Your task to perform on an android device: set default search engine in the chrome app Image 0: 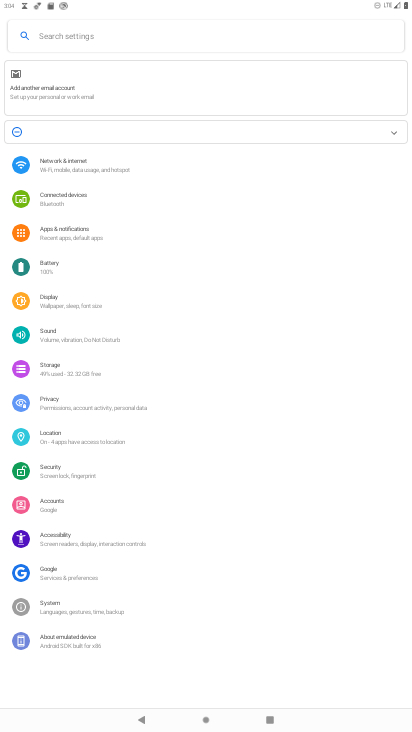
Step 0: press home button
Your task to perform on an android device: set default search engine in the chrome app Image 1: 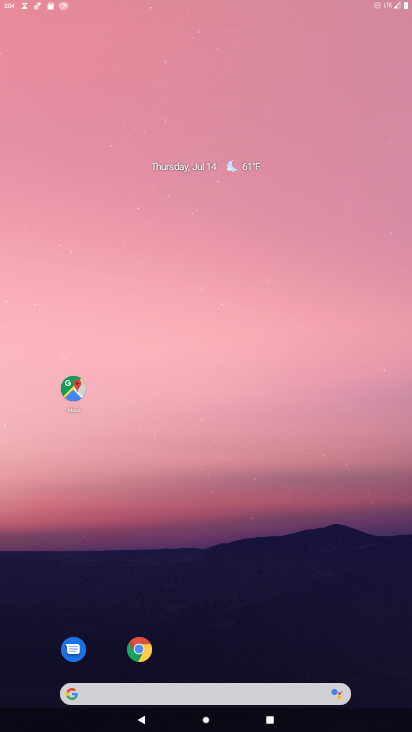
Step 1: drag from (256, 632) to (398, 419)
Your task to perform on an android device: set default search engine in the chrome app Image 2: 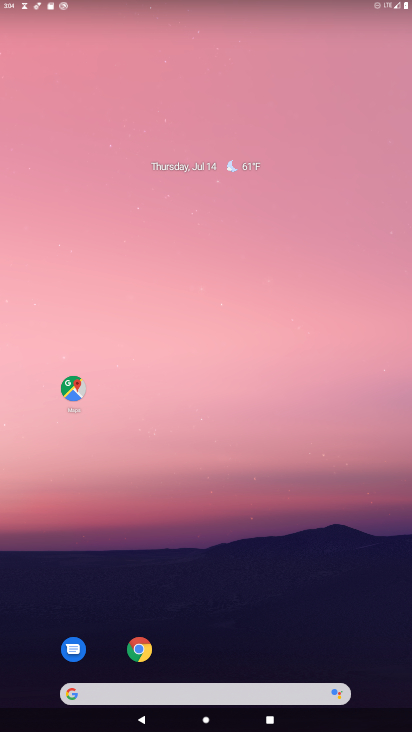
Step 2: click (133, 288)
Your task to perform on an android device: set default search engine in the chrome app Image 3: 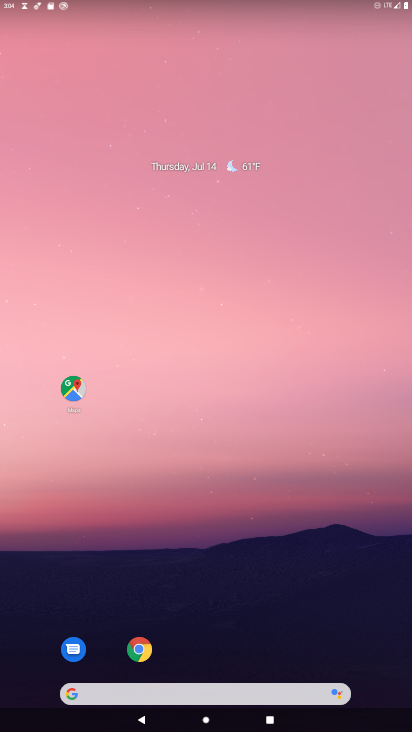
Step 3: drag from (290, 690) to (311, 13)
Your task to perform on an android device: set default search engine in the chrome app Image 4: 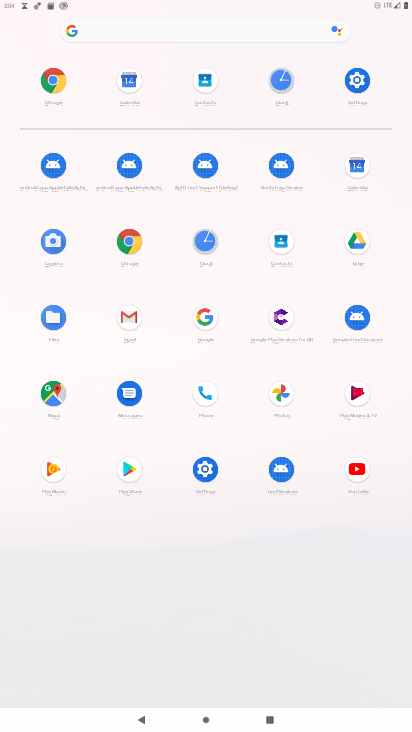
Step 4: click (128, 237)
Your task to perform on an android device: set default search engine in the chrome app Image 5: 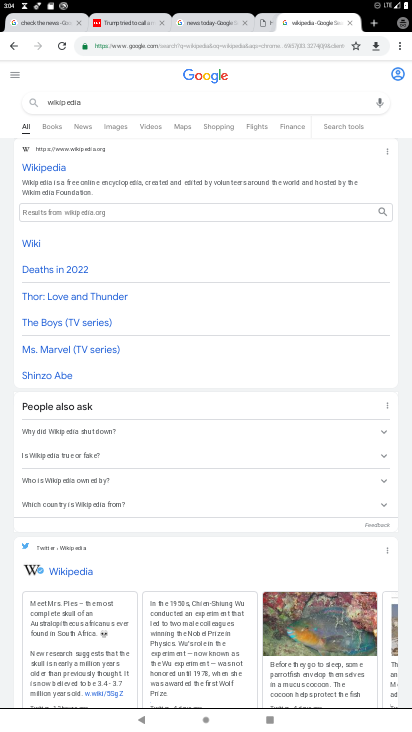
Step 5: drag from (397, 44) to (316, 280)
Your task to perform on an android device: set default search engine in the chrome app Image 6: 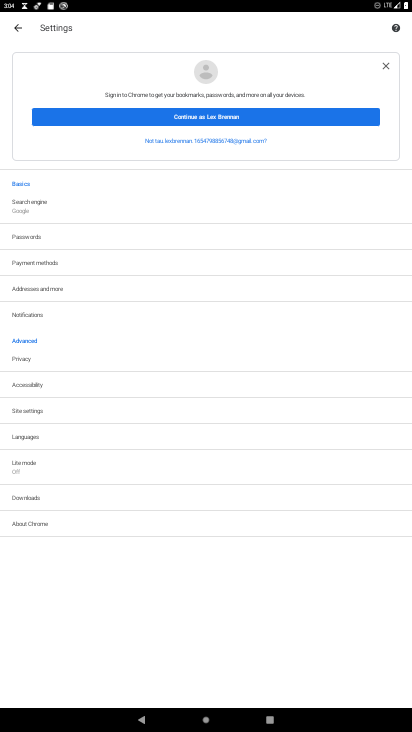
Step 6: click (43, 213)
Your task to perform on an android device: set default search engine in the chrome app Image 7: 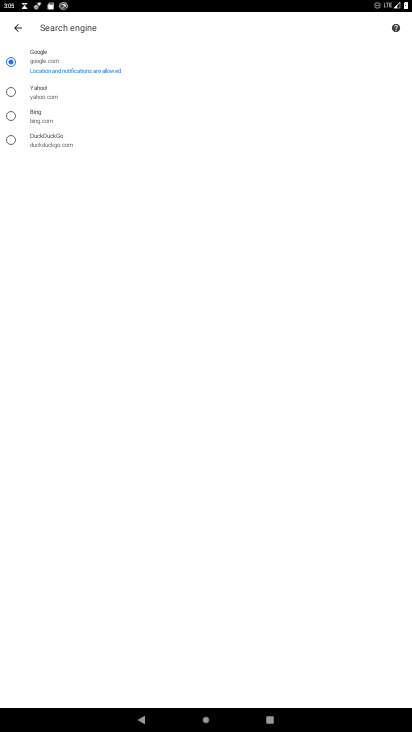
Step 7: task complete